Your task to perform on an android device: Open eBay Image 0: 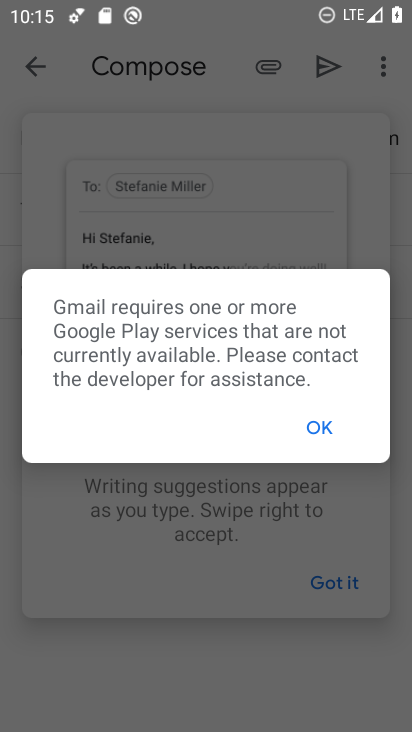
Step 0: press home button
Your task to perform on an android device: Open eBay Image 1: 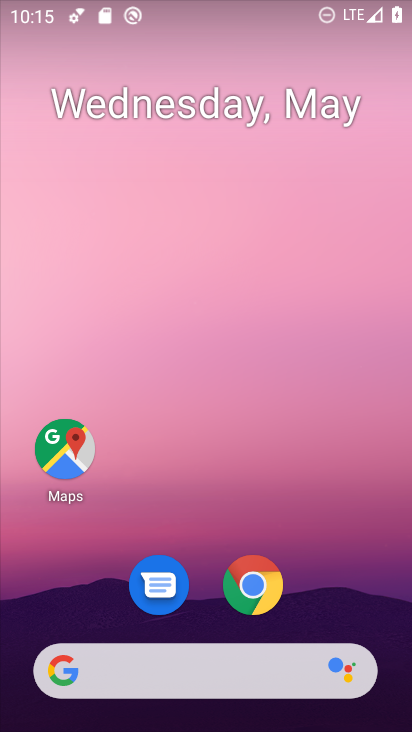
Step 1: click (245, 674)
Your task to perform on an android device: Open eBay Image 2: 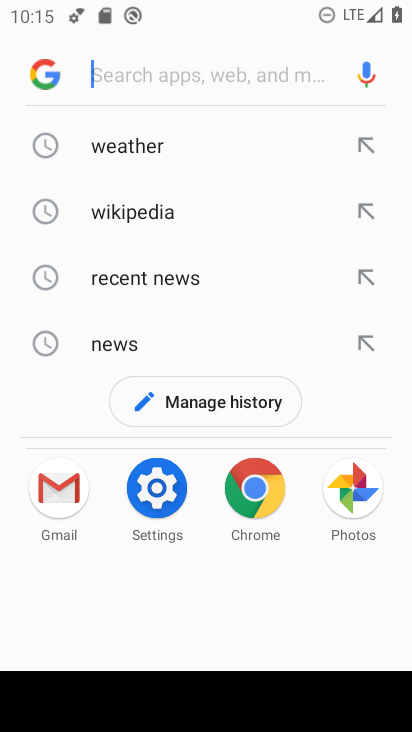
Step 2: type "ebay"
Your task to perform on an android device: Open eBay Image 3: 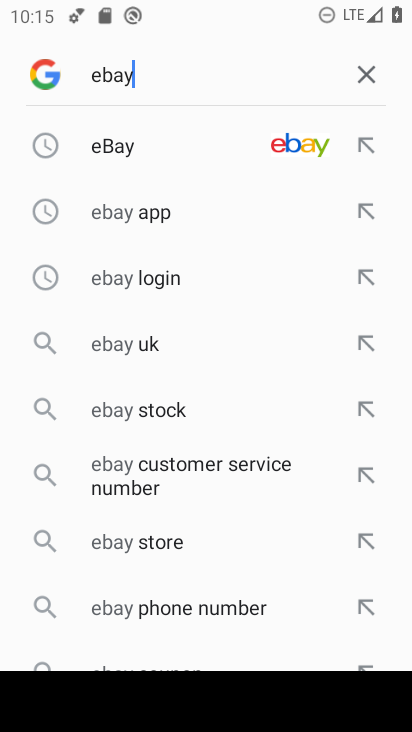
Step 3: click (119, 150)
Your task to perform on an android device: Open eBay Image 4: 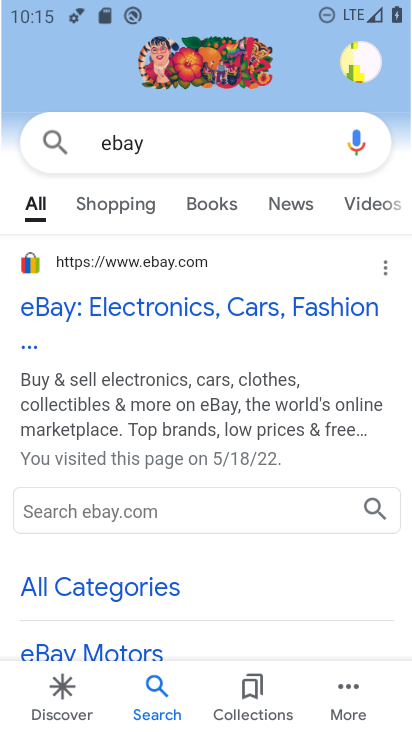
Step 4: click (62, 299)
Your task to perform on an android device: Open eBay Image 5: 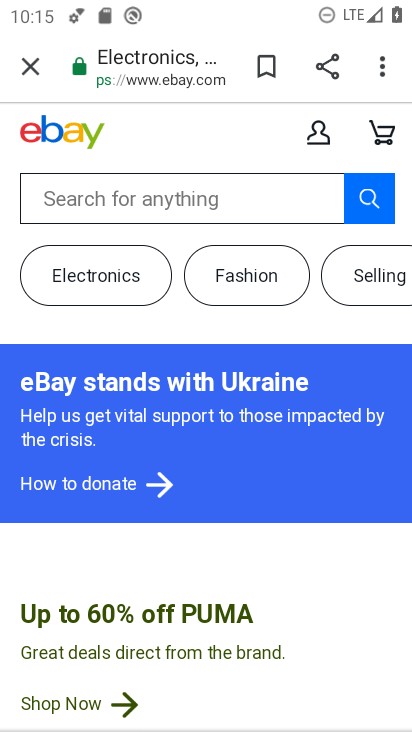
Step 5: task complete